Your task to perform on an android device: What's the weather? Image 0: 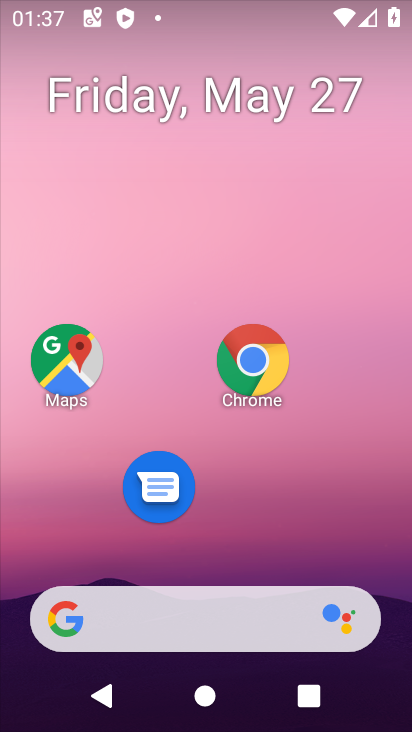
Step 0: drag from (283, 524) to (303, 77)
Your task to perform on an android device: What's the weather? Image 1: 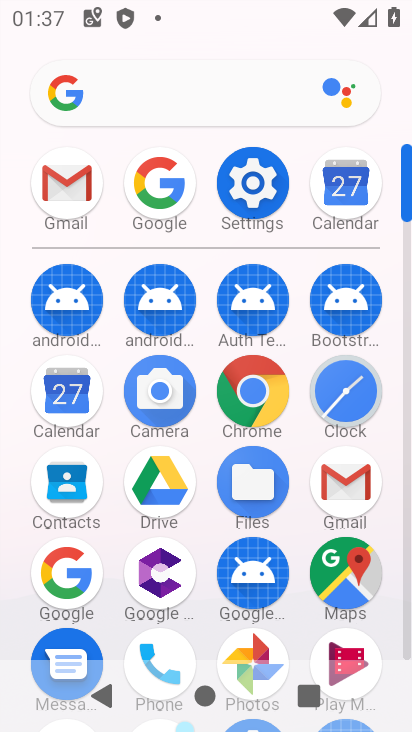
Step 1: click (161, 181)
Your task to perform on an android device: What's the weather? Image 2: 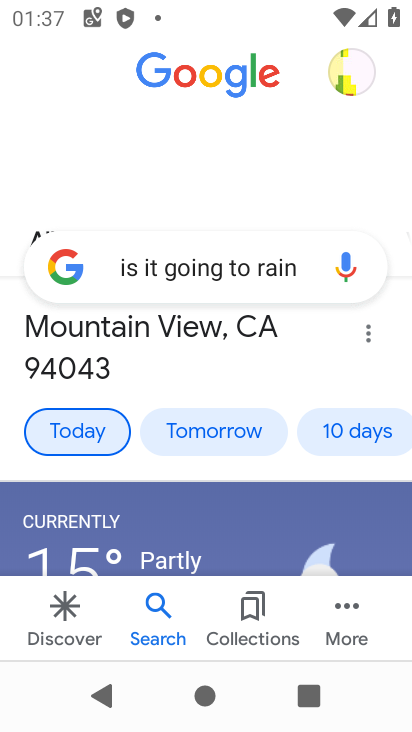
Step 2: click (282, 272)
Your task to perform on an android device: What's the weather? Image 3: 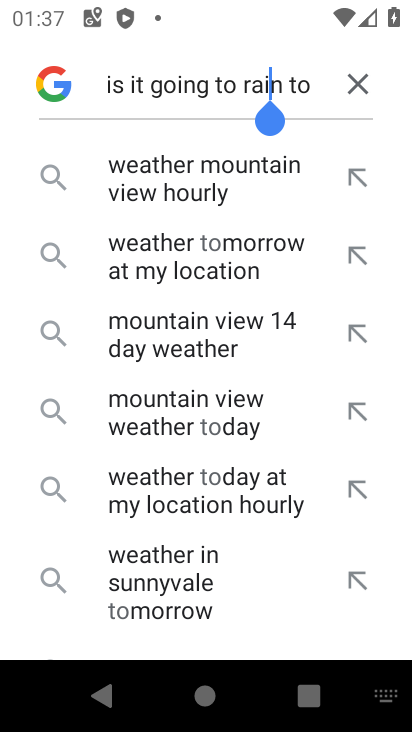
Step 3: click (345, 86)
Your task to perform on an android device: What's the weather? Image 4: 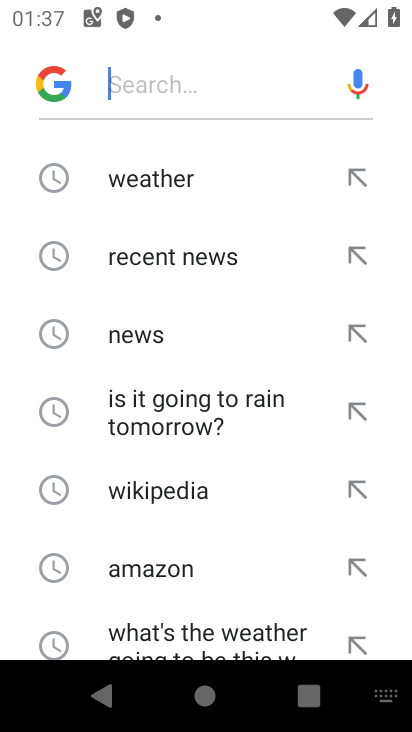
Step 4: click (141, 167)
Your task to perform on an android device: What's the weather? Image 5: 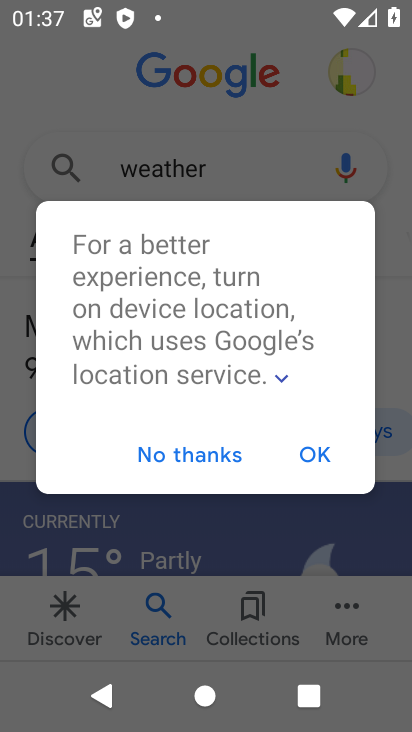
Step 5: click (173, 471)
Your task to perform on an android device: What's the weather? Image 6: 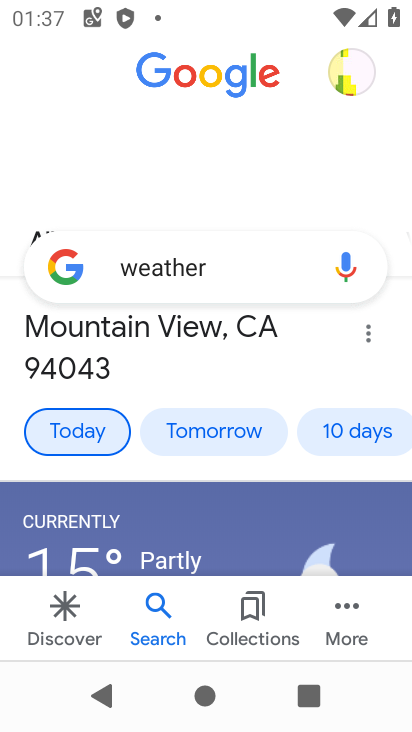
Step 6: task complete